Your task to perform on an android device: open a bookmark in the chrome app Image 0: 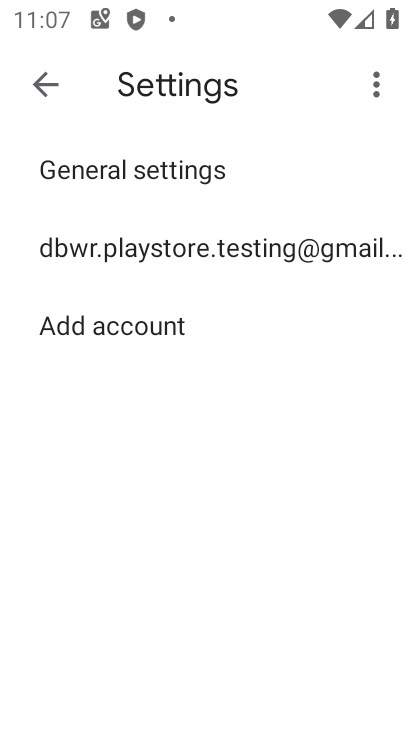
Step 0: press home button
Your task to perform on an android device: open a bookmark in the chrome app Image 1: 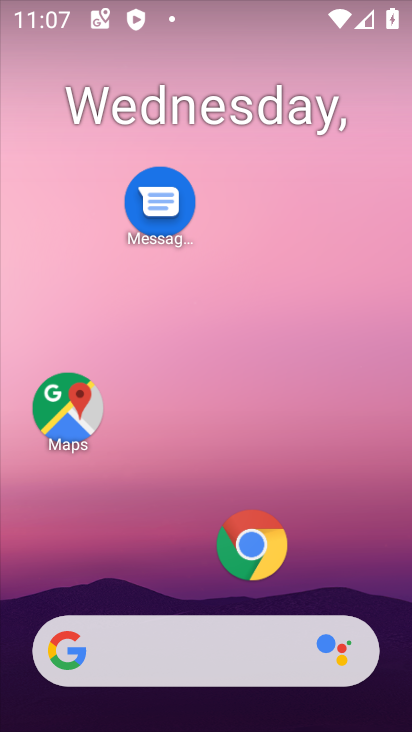
Step 1: click (251, 555)
Your task to perform on an android device: open a bookmark in the chrome app Image 2: 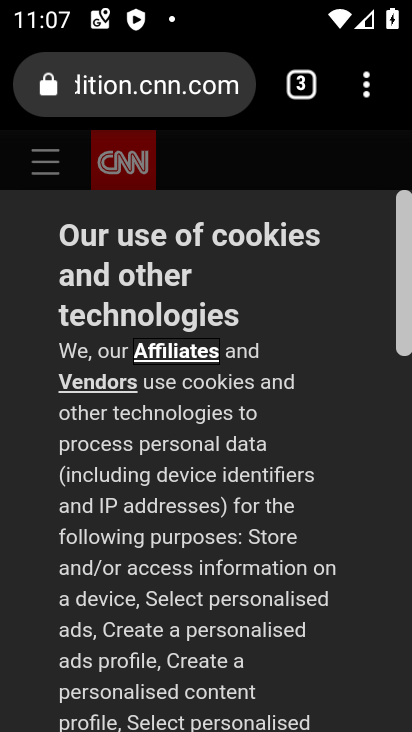
Step 2: task complete